Your task to perform on an android device: open a bookmark in the chrome app Image 0: 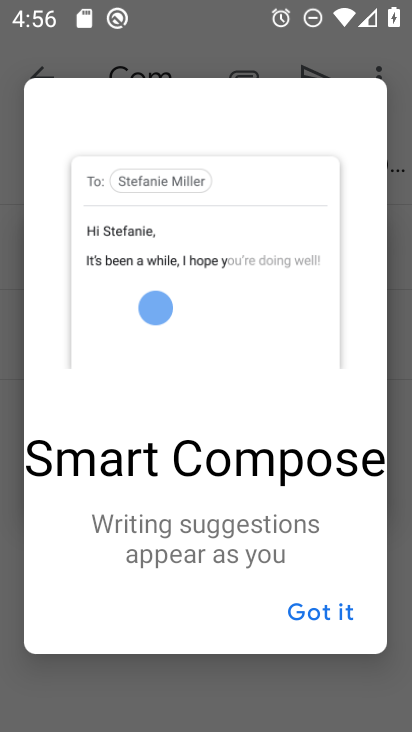
Step 0: press home button
Your task to perform on an android device: open a bookmark in the chrome app Image 1: 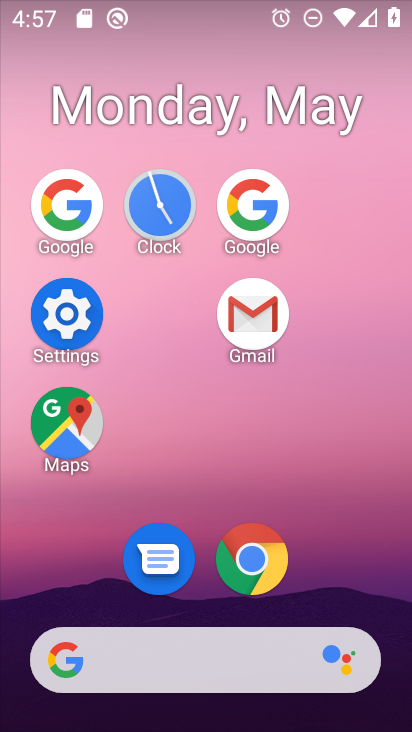
Step 1: click (244, 568)
Your task to perform on an android device: open a bookmark in the chrome app Image 2: 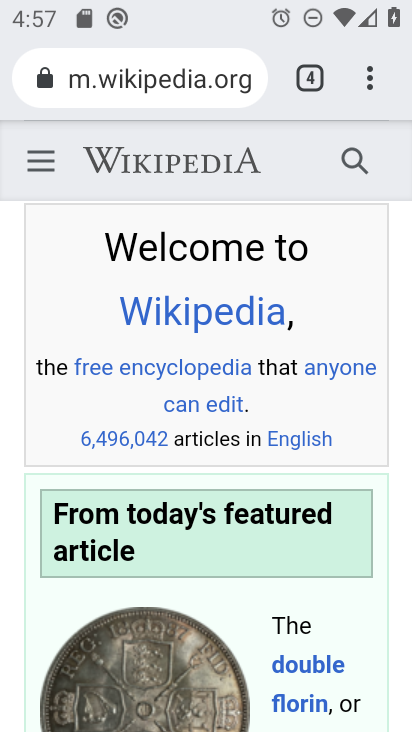
Step 2: click (379, 67)
Your task to perform on an android device: open a bookmark in the chrome app Image 3: 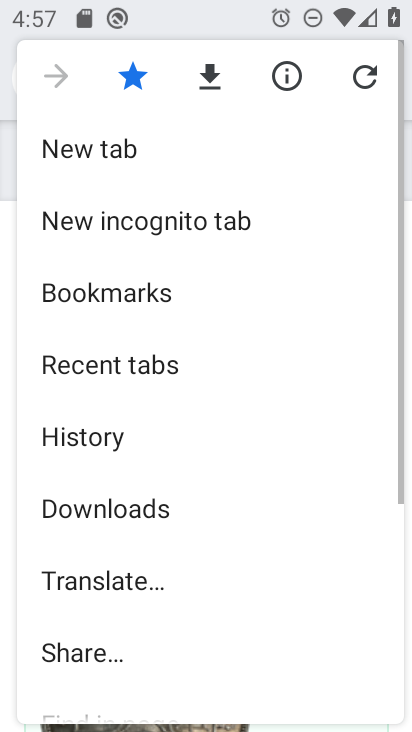
Step 3: click (103, 305)
Your task to perform on an android device: open a bookmark in the chrome app Image 4: 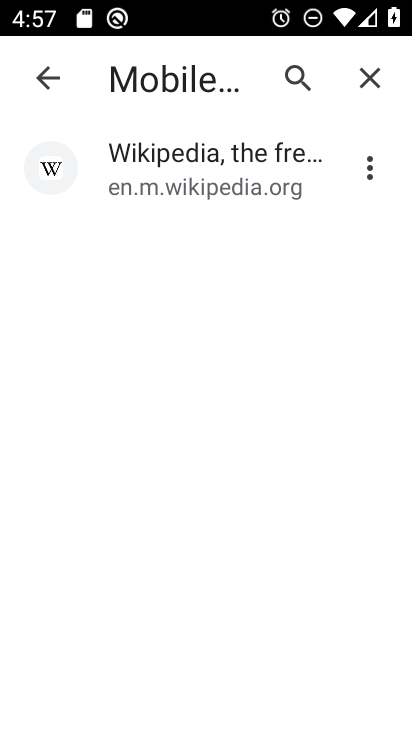
Step 4: task complete